Your task to perform on an android device: turn pop-ups off in chrome Image 0: 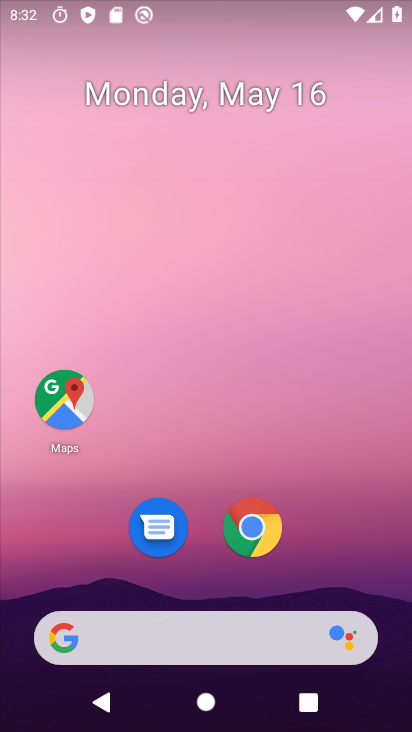
Step 0: drag from (55, 602) to (184, 84)
Your task to perform on an android device: turn pop-ups off in chrome Image 1: 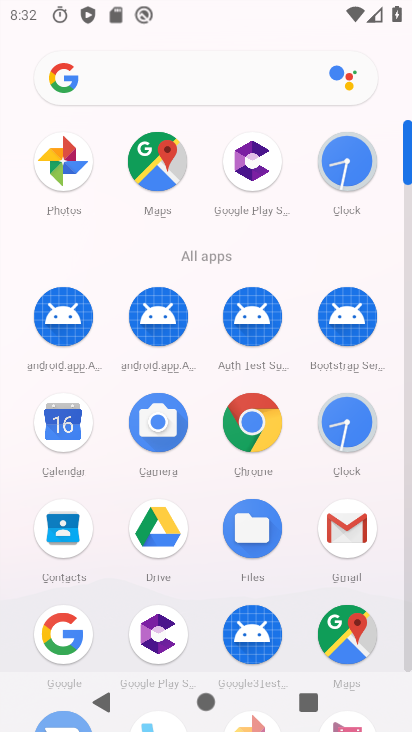
Step 1: click (258, 430)
Your task to perform on an android device: turn pop-ups off in chrome Image 2: 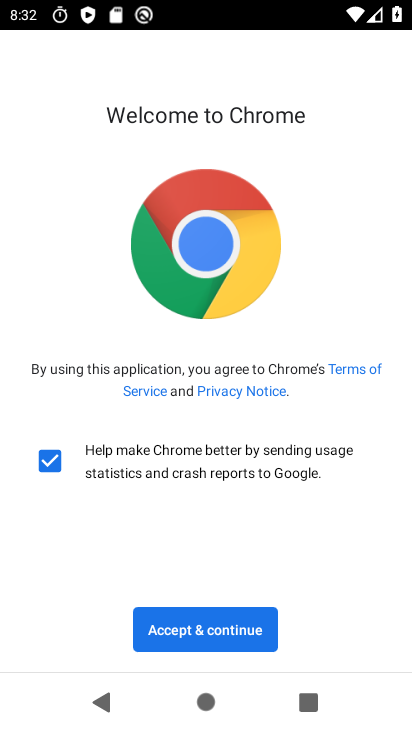
Step 2: click (225, 638)
Your task to perform on an android device: turn pop-ups off in chrome Image 3: 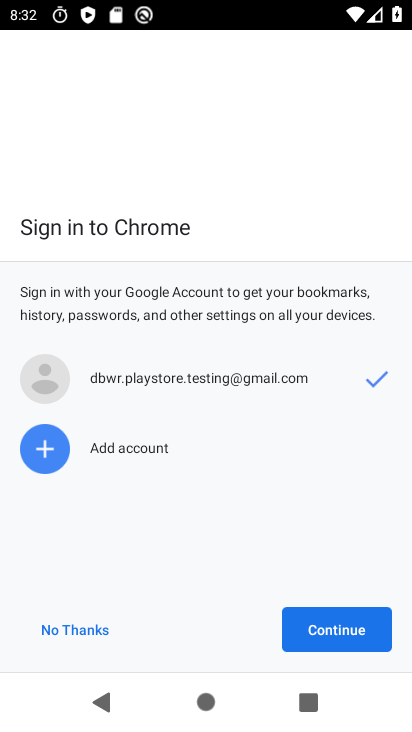
Step 3: click (347, 602)
Your task to perform on an android device: turn pop-ups off in chrome Image 4: 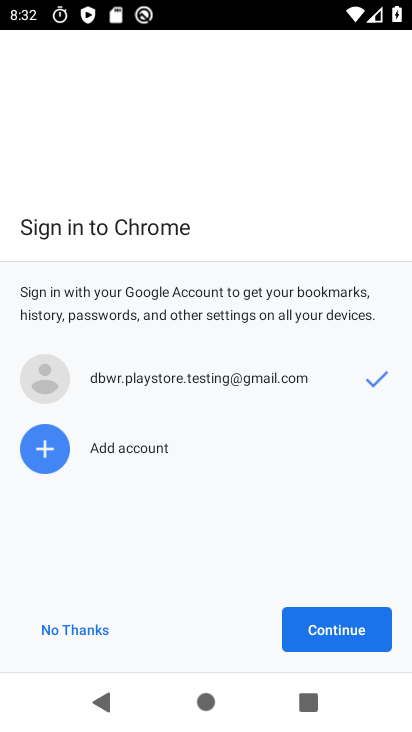
Step 4: click (365, 616)
Your task to perform on an android device: turn pop-ups off in chrome Image 5: 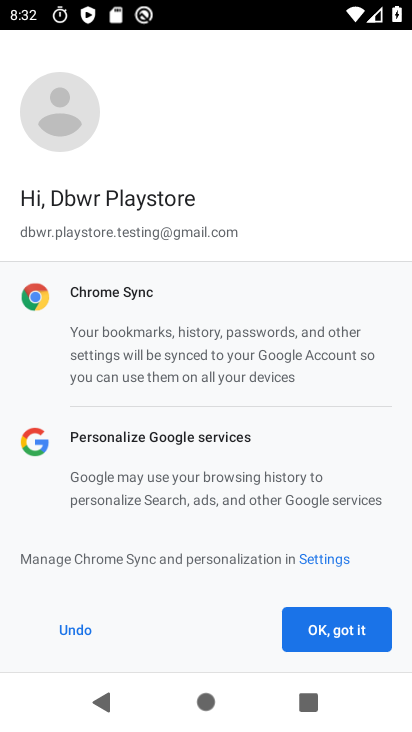
Step 5: click (357, 643)
Your task to perform on an android device: turn pop-ups off in chrome Image 6: 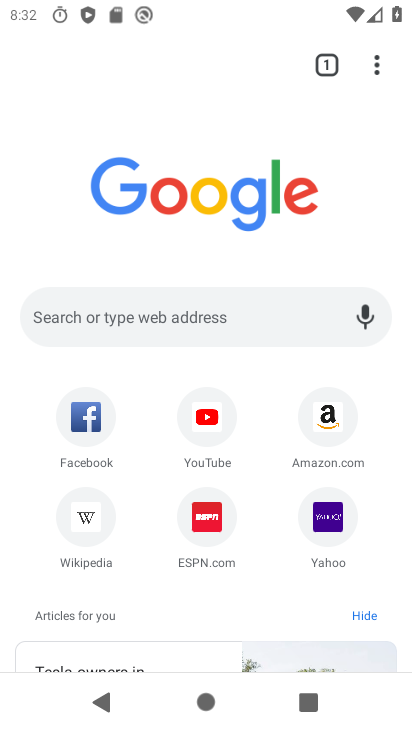
Step 6: drag from (377, 67) to (223, 559)
Your task to perform on an android device: turn pop-ups off in chrome Image 7: 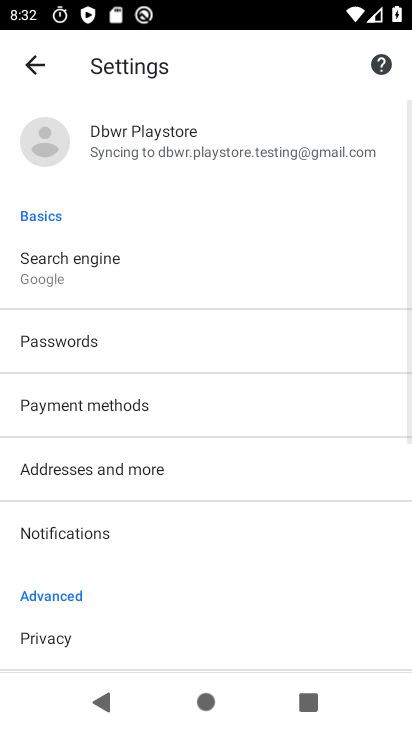
Step 7: drag from (174, 605) to (237, 220)
Your task to perform on an android device: turn pop-ups off in chrome Image 8: 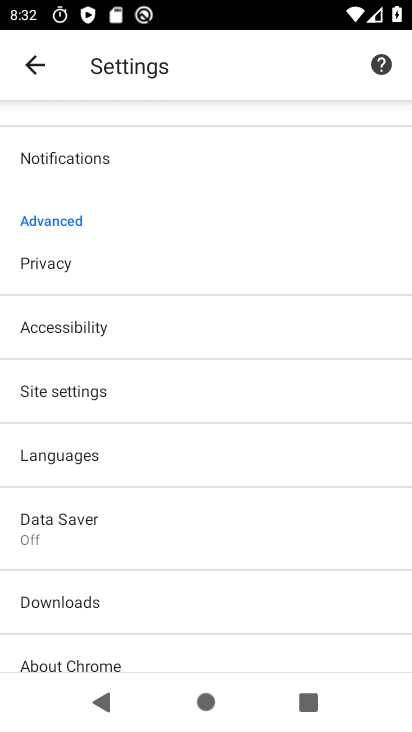
Step 8: click (153, 396)
Your task to perform on an android device: turn pop-ups off in chrome Image 9: 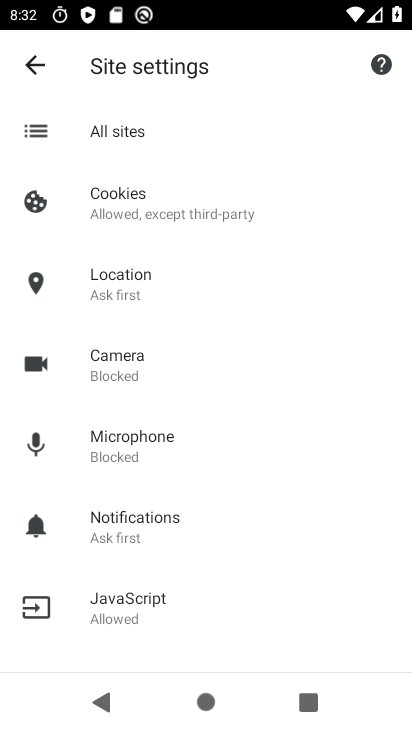
Step 9: drag from (209, 607) to (269, 235)
Your task to perform on an android device: turn pop-ups off in chrome Image 10: 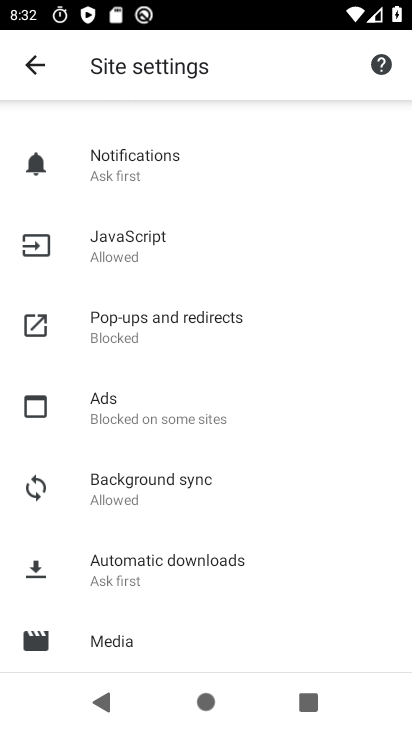
Step 10: click (223, 337)
Your task to perform on an android device: turn pop-ups off in chrome Image 11: 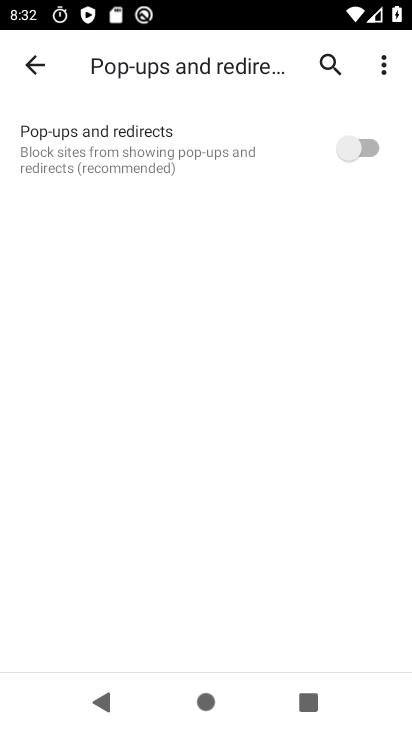
Step 11: task complete